Your task to perform on an android device: check android version Image 0: 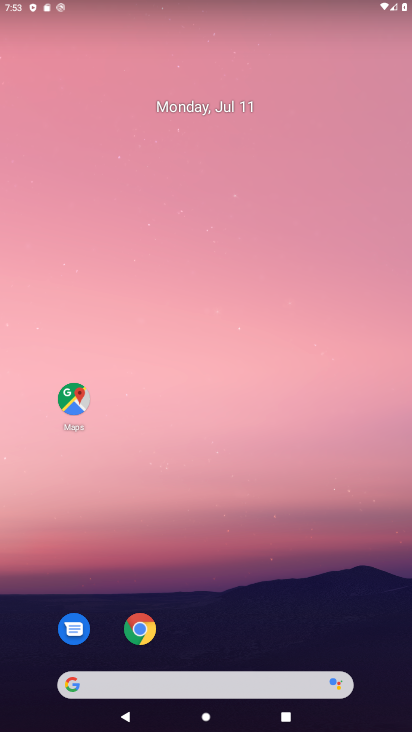
Step 0: drag from (180, 644) to (196, 81)
Your task to perform on an android device: check android version Image 1: 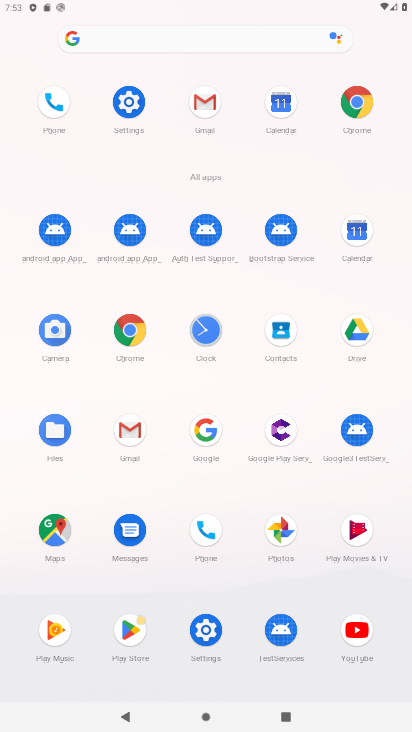
Step 1: click (126, 104)
Your task to perform on an android device: check android version Image 2: 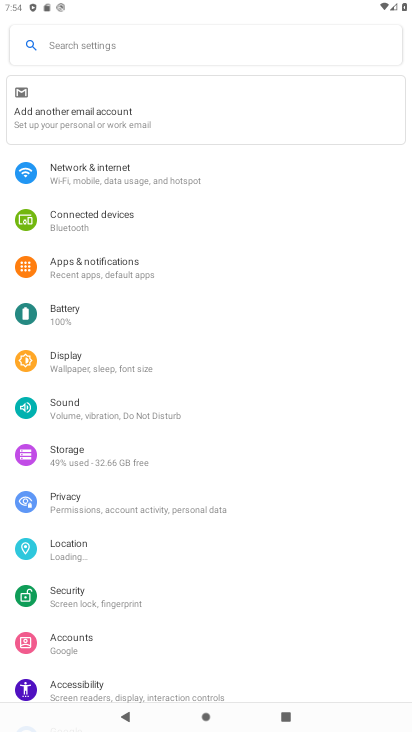
Step 2: drag from (185, 526) to (176, 41)
Your task to perform on an android device: check android version Image 3: 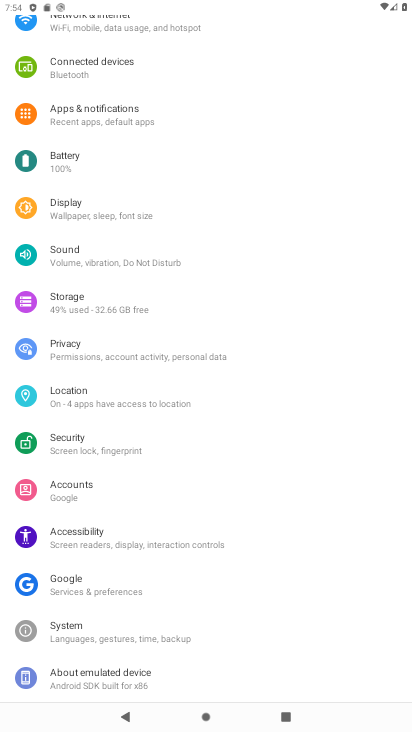
Step 3: click (108, 692)
Your task to perform on an android device: check android version Image 4: 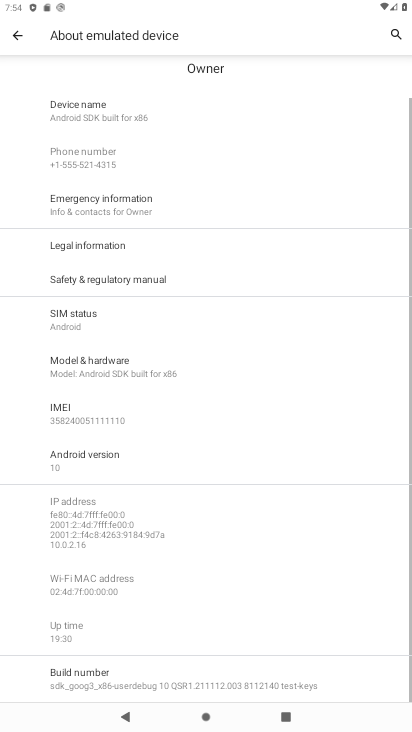
Step 4: click (82, 456)
Your task to perform on an android device: check android version Image 5: 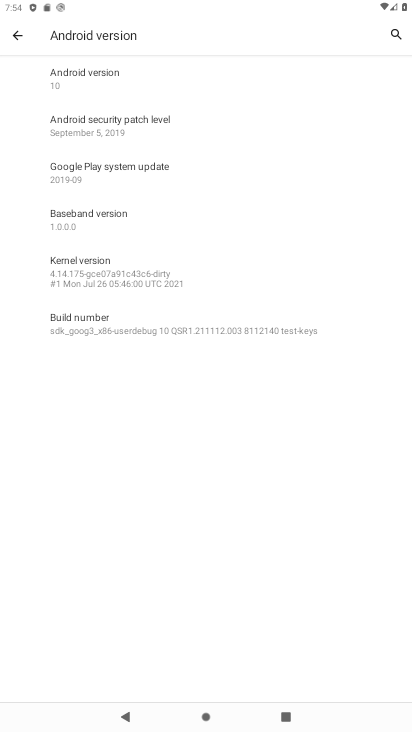
Step 5: click (66, 79)
Your task to perform on an android device: check android version Image 6: 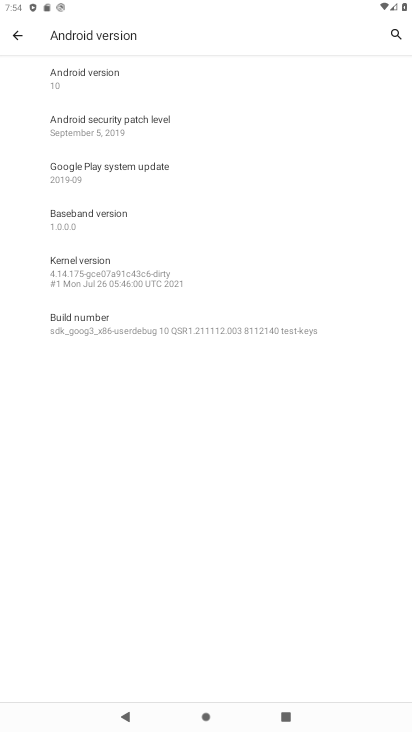
Step 6: task complete